Your task to perform on an android device: open wifi settings Image 0: 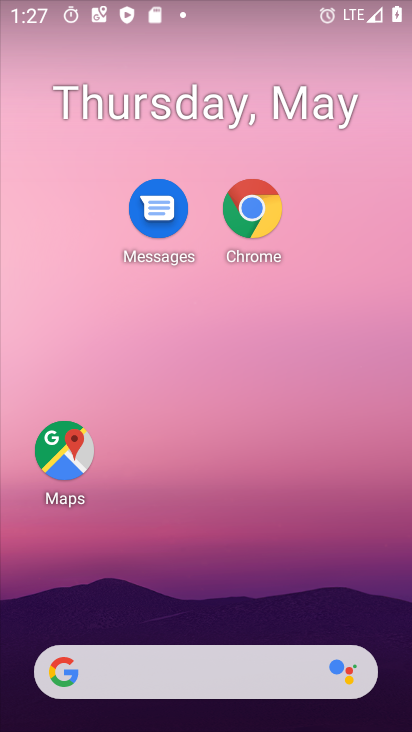
Step 0: drag from (232, 574) to (243, 19)
Your task to perform on an android device: open wifi settings Image 1: 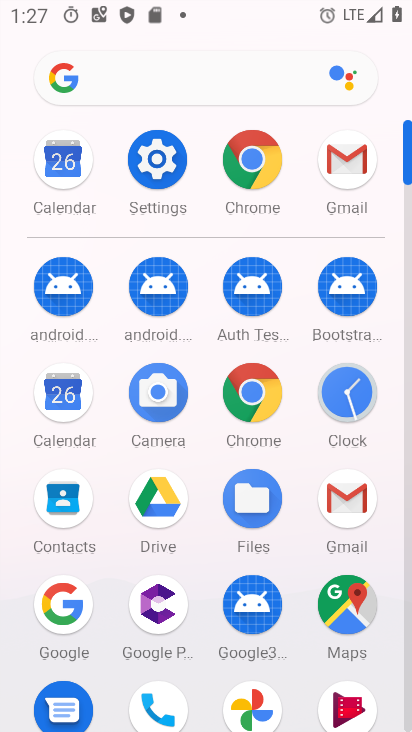
Step 1: click (161, 183)
Your task to perform on an android device: open wifi settings Image 2: 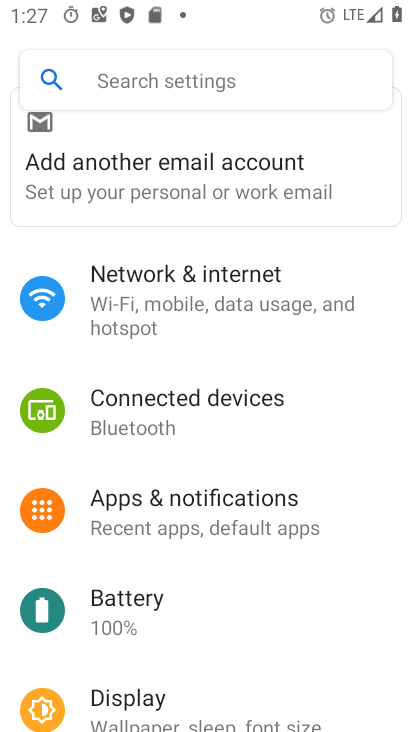
Step 2: click (167, 305)
Your task to perform on an android device: open wifi settings Image 3: 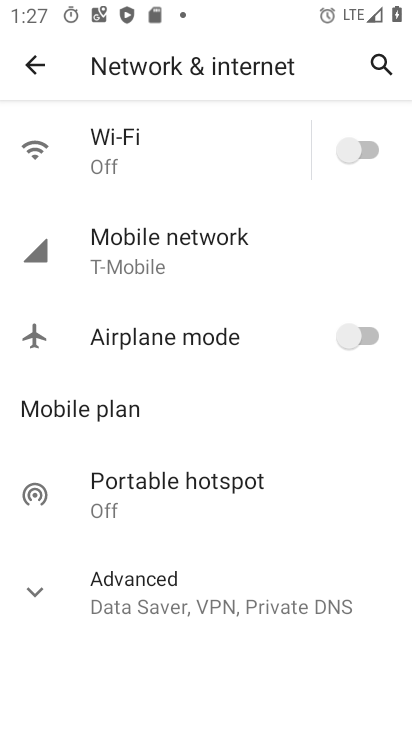
Step 3: click (173, 157)
Your task to perform on an android device: open wifi settings Image 4: 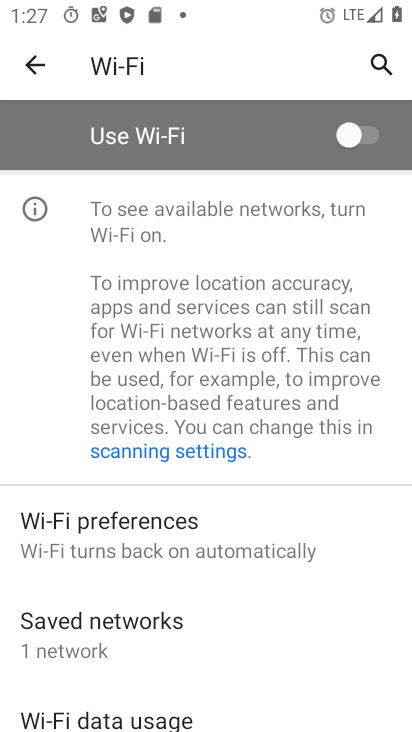
Step 4: task complete